Your task to perform on an android device: Is it going to rain today? Image 0: 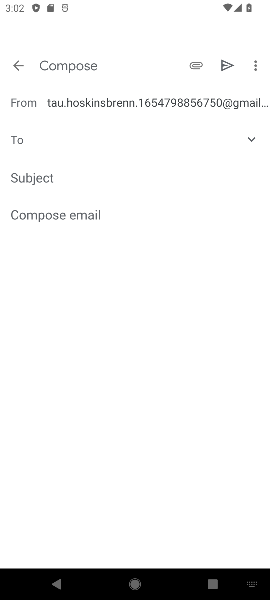
Step 0: press back button
Your task to perform on an android device: Is it going to rain today? Image 1: 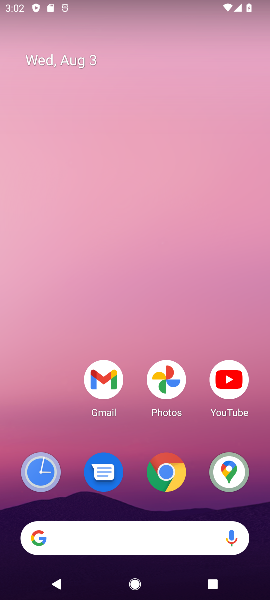
Step 1: drag from (58, 323) to (98, 2)
Your task to perform on an android device: Is it going to rain today? Image 2: 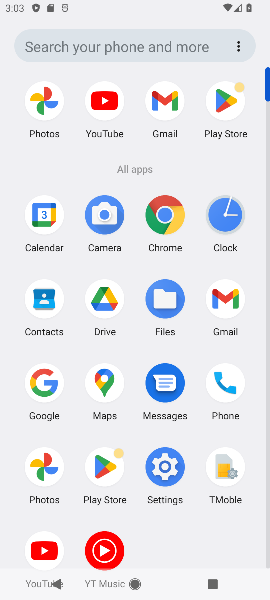
Step 2: click (46, 382)
Your task to perform on an android device: Is it going to rain today? Image 3: 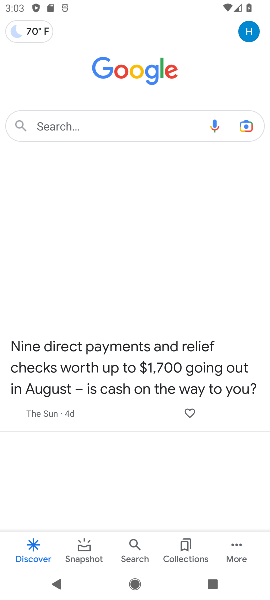
Step 3: click (65, 132)
Your task to perform on an android device: Is it going to rain today? Image 4: 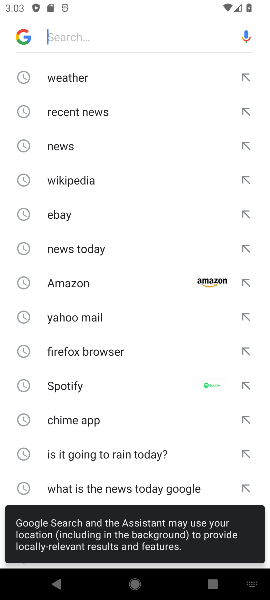
Step 4: type "weather"
Your task to perform on an android device: Is it going to rain today? Image 5: 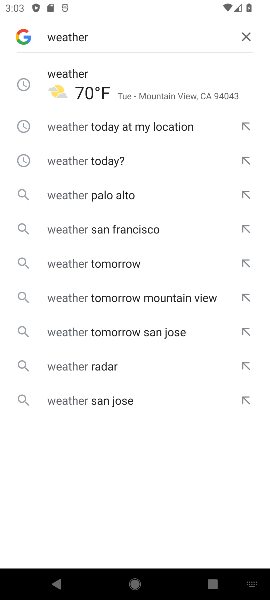
Step 5: click (115, 90)
Your task to perform on an android device: Is it going to rain today? Image 6: 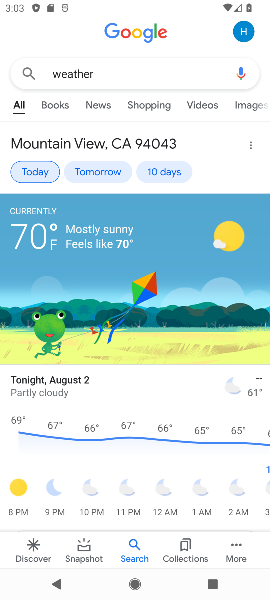
Step 6: task complete